Your task to perform on an android device: check data usage Image 0: 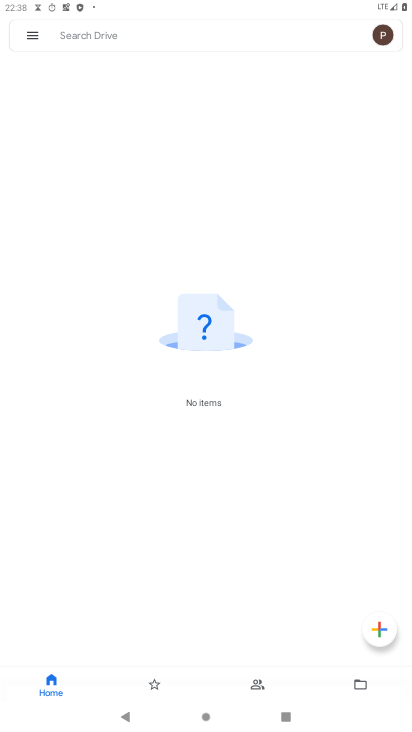
Step 0: press home button
Your task to perform on an android device: check data usage Image 1: 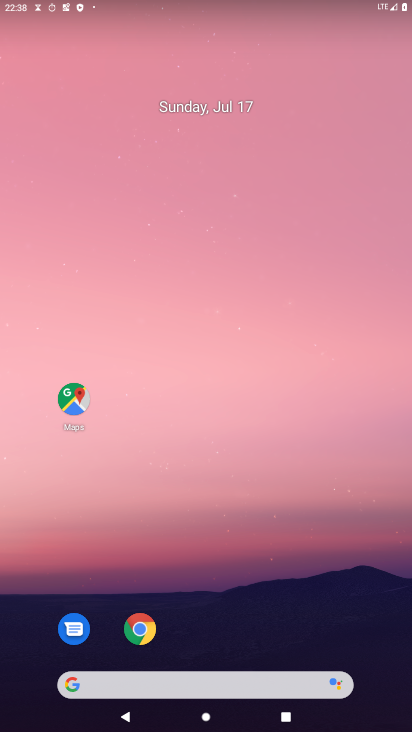
Step 1: drag from (225, 726) to (225, 92)
Your task to perform on an android device: check data usage Image 2: 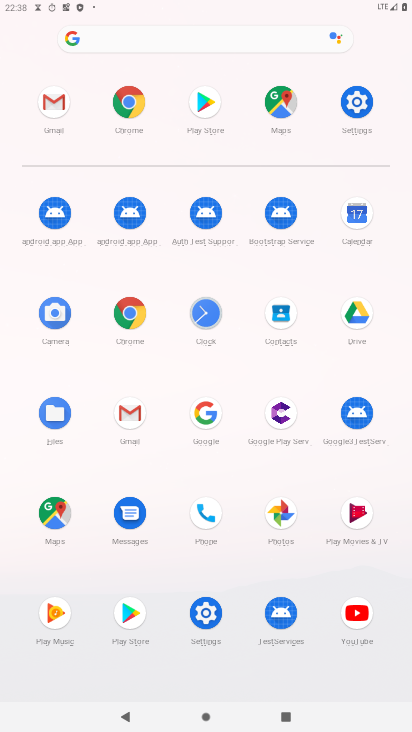
Step 2: click (352, 98)
Your task to perform on an android device: check data usage Image 3: 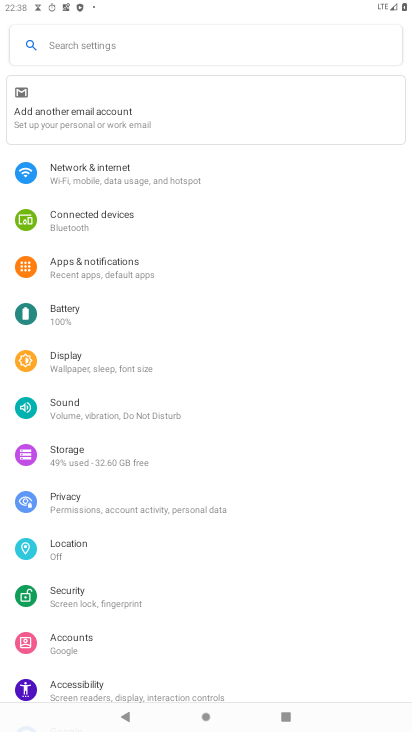
Step 3: click (96, 166)
Your task to perform on an android device: check data usage Image 4: 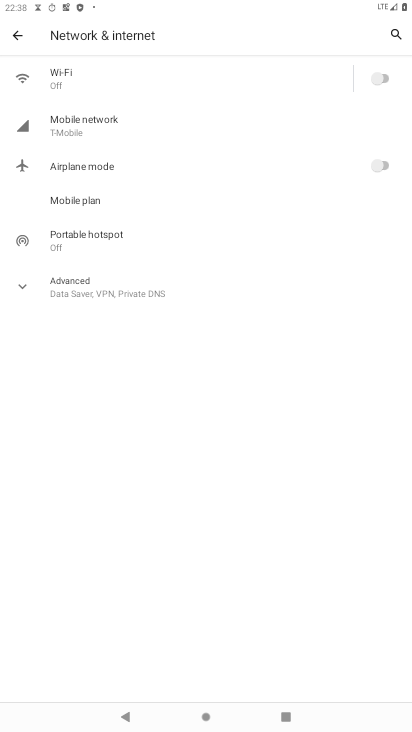
Step 4: click (64, 116)
Your task to perform on an android device: check data usage Image 5: 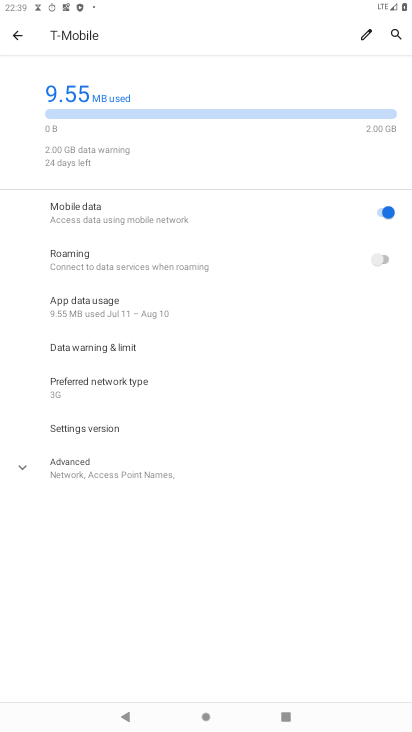
Step 5: task complete